Your task to perform on an android device: What's the weather like inToronto? Image 0: 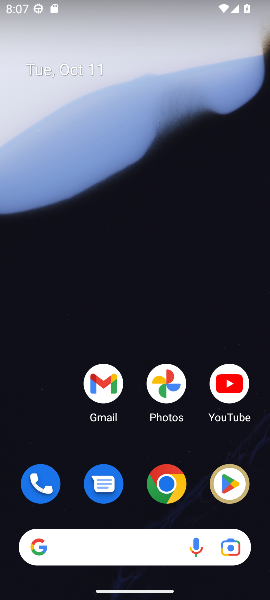
Step 0: drag from (102, 430) to (180, 69)
Your task to perform on an android device: What's the weather like inToronto? Image 1: 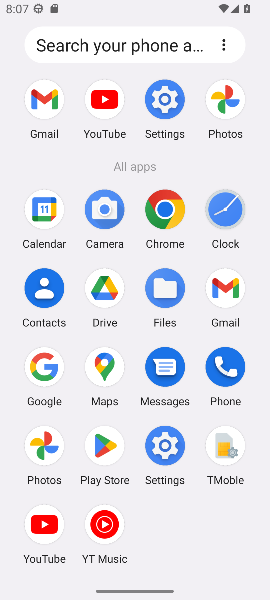
Step 1: click (171, 220)
Your task to perform on an android device: What's the weather like inToronto? Image 2: 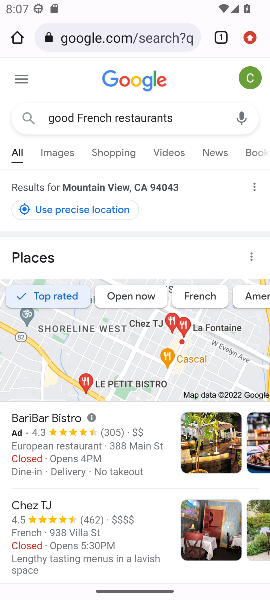
Step 2: click (174, 43)
Your task to perform on an android device: What's the weather like inToronto? Image 3: 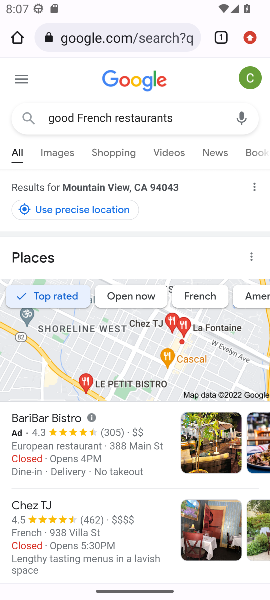
Step 3: click (175, 42)
Your task to perform on an android device: What's the weather like inToronto? Image 4: 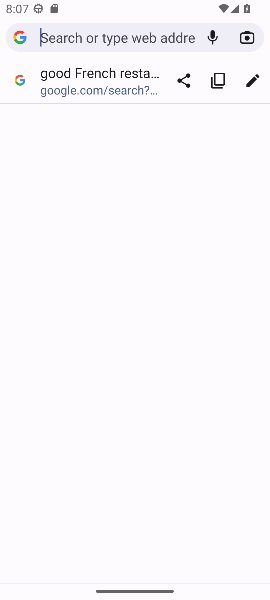
Step 4: click (176, 43)
Your task to perform on an android device: What's the weather like inToronto? Image 5: 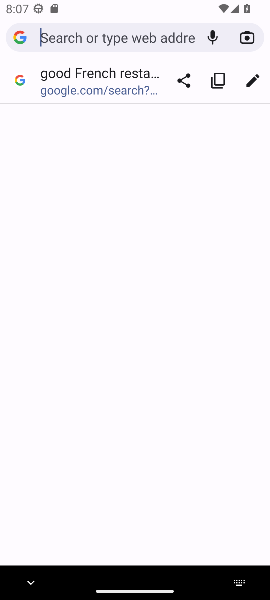
Step 5: type "weather like inToronto?"
Your task to perform on an android device: What's the weather like inToronto? Image 6: 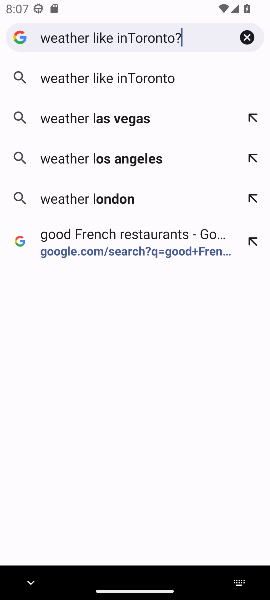
Step 6: press enter
Your task to perform on an android device: What's the weather like inToronto? Image 7: 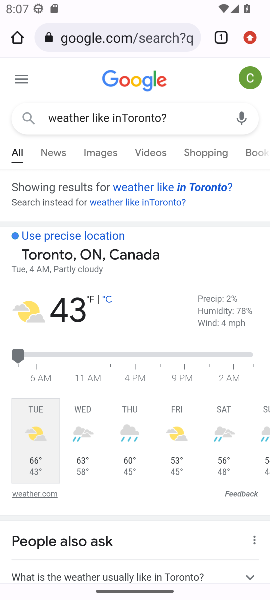
Step 7: task complete